Your task to perform on an android device: Search for pizza restaurants on Maps Image 0: 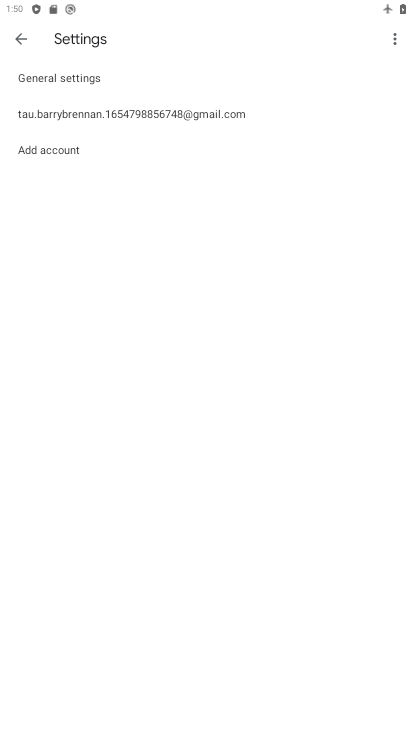
Step 0: press home button
Your task to perform on an android device: Search for pizza restaurants on Maps Image 1: 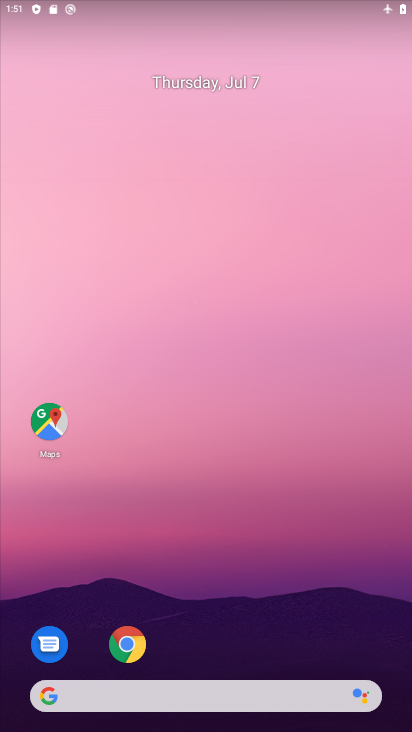
Step 1: drag from (194, 640) to (152, 138)
Your task to perform on an android device: Search for pizza restaurants on Maps Image 2: 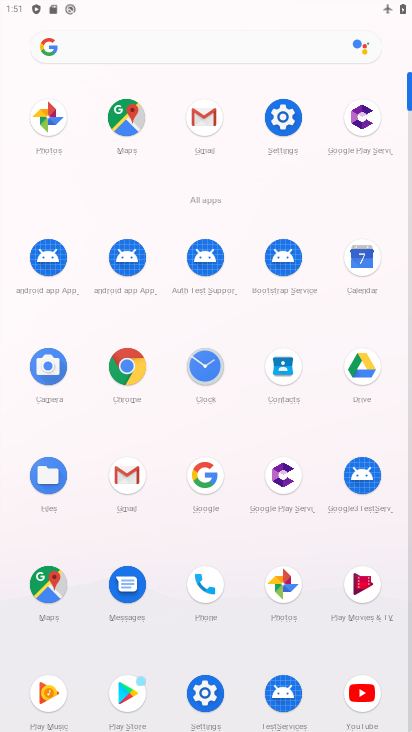
Step 2: click (127, 128)
Your task to perform on an android device: Search for pizza restaurants on Maps Image 3: 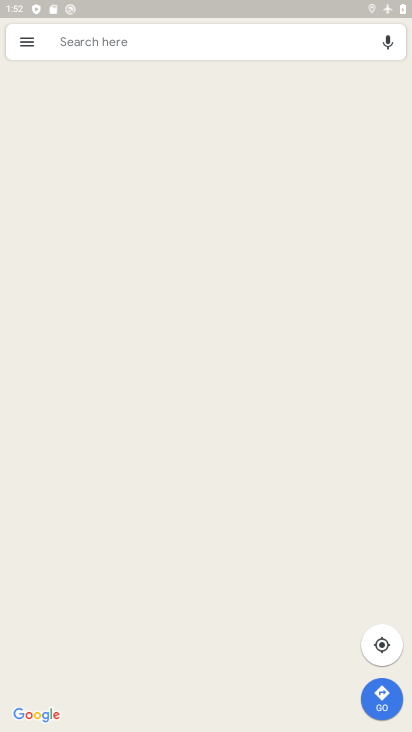
Step 3: click (175, 40)
Your task to perform on an android device: Search for pizza restaurants on Maps Image 4: 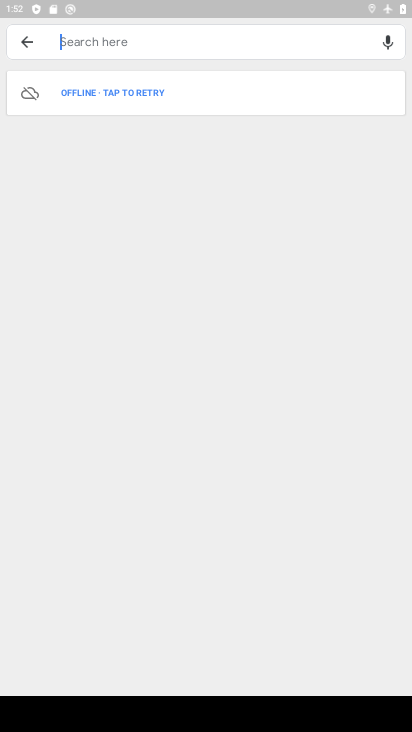
Step 4: task complete